Your task to perform on an android device: Search for pizza restaurants on Maps Image 0: 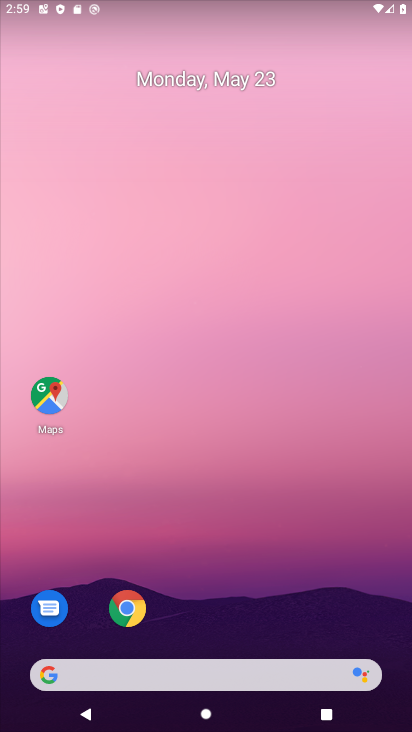
Step 0: click (50, 396)
Your task to perform on an android device: Search for pizza restaurants on Maps Image 1: 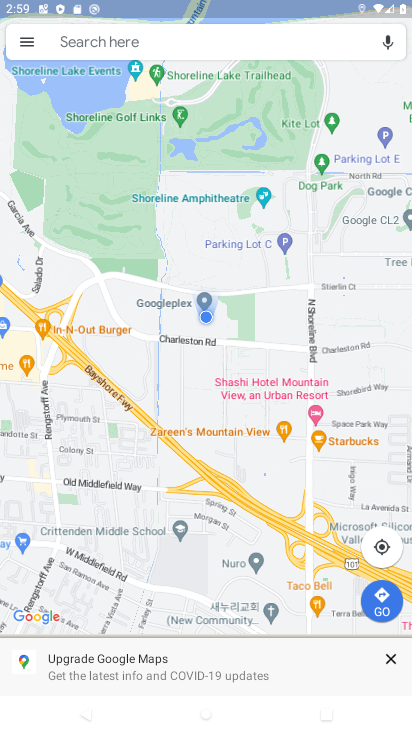
Step 1: click (170, 40)
Your task to perform on an android device: Search for pizza restaurants on Maps Image 2: 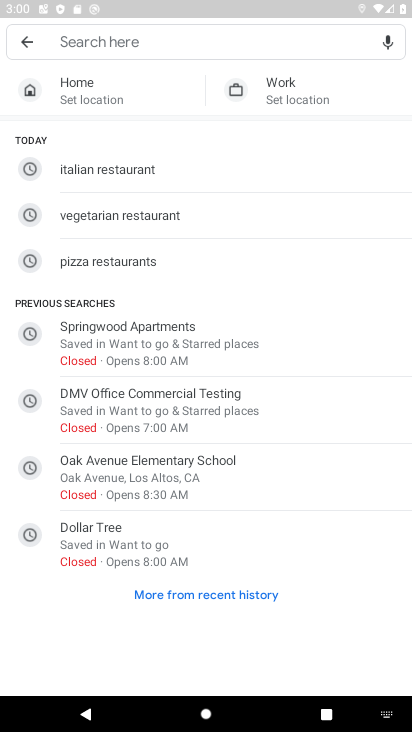
Step 2: type "pizza restaurants"
Your task to perform on an android device: Search for pizza restaurants on Maps Image 3: 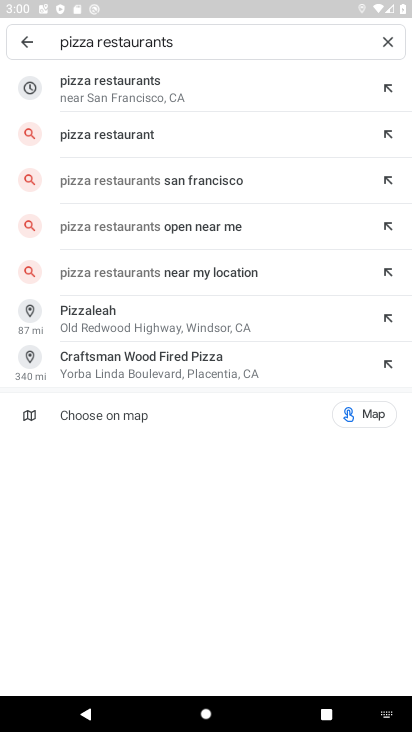
Step 3: click (107, 137)
Your task to perform on an android device: Search for pizza restaurants on Maps Image 4: 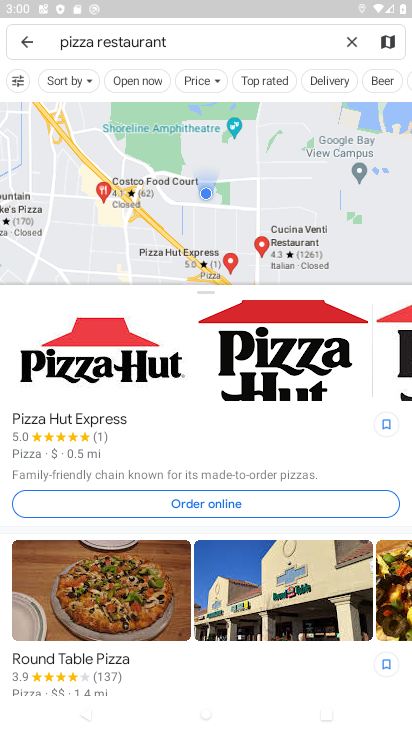
Step 4: task complete